Your task to perform on an android device: refresh tabs in the chrome app Image 0: 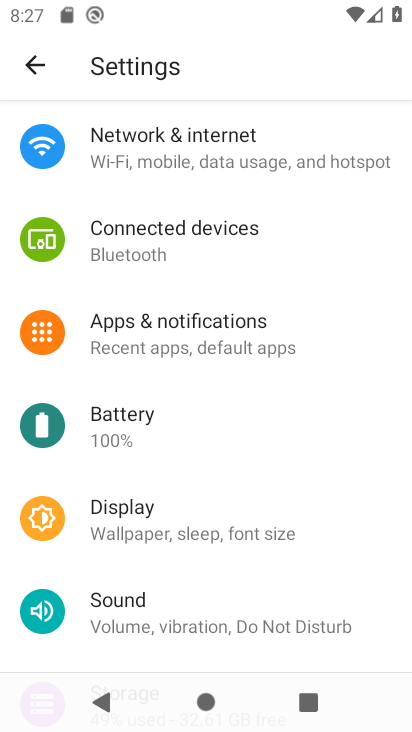
Step 0: press home button
Your task to perform on an android device: refresh tabs in the chrome app Image 1: 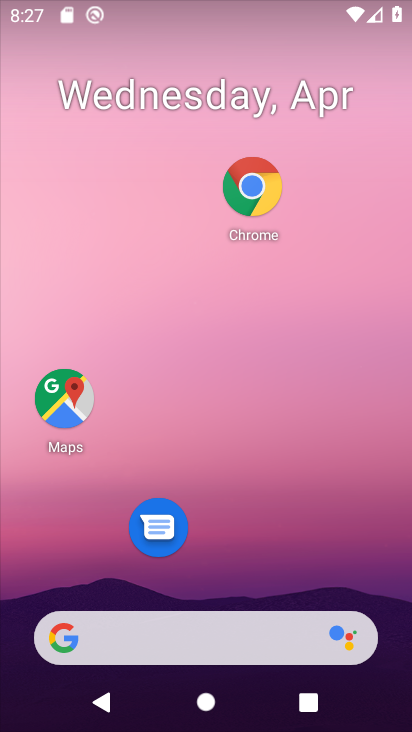
Step 1: click (309, 581)
Your task to perform on an android device: refresh tabs in the chrome app Image 2: 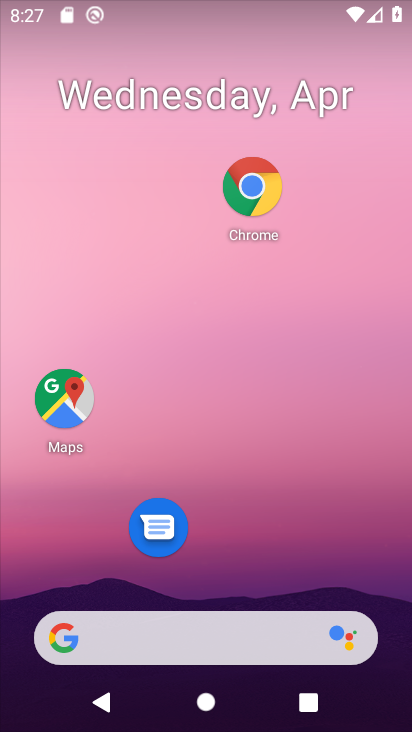
Step 2: drag from (315, 502) to (344, 205)
Your task to perform on an android device: refresh tabs in the chrome app Image 3: 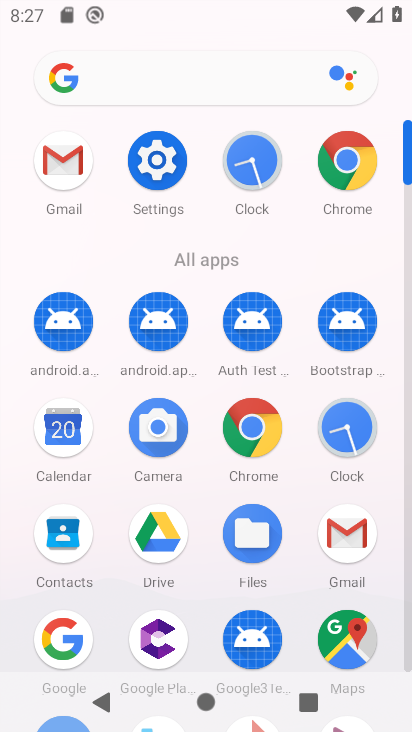
Step 3: click (258, 421)
Your task to perform on an android device: refresh tabs in the chrome app Image 4: 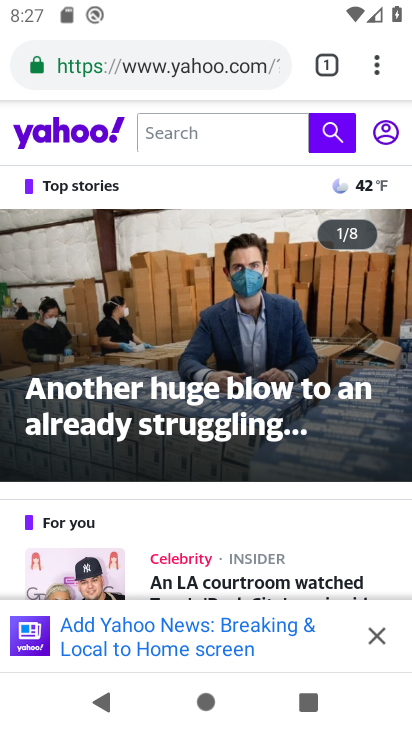
Step 4: click (370, 67)
Your task to perform on an android device: refresh tabs in the chrome app Image 5: 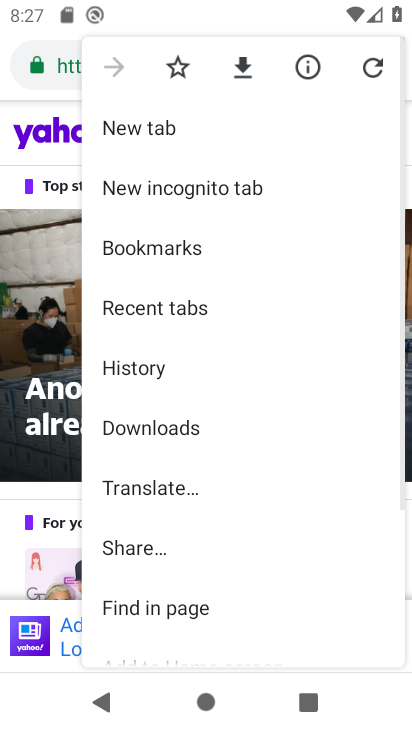
Step 5: click (370, 67)
Your task to perform on an android device: refresh tabs in the chrome app Image 6: 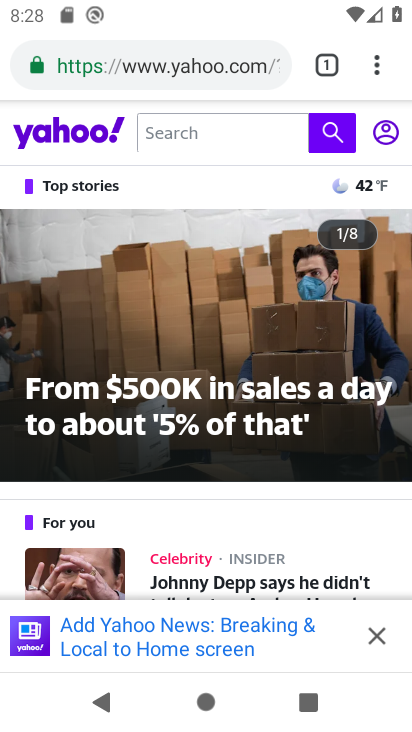
Step 6: task complete